Your task to perform on an android device: visit the assistant section in the google photos Image 0: 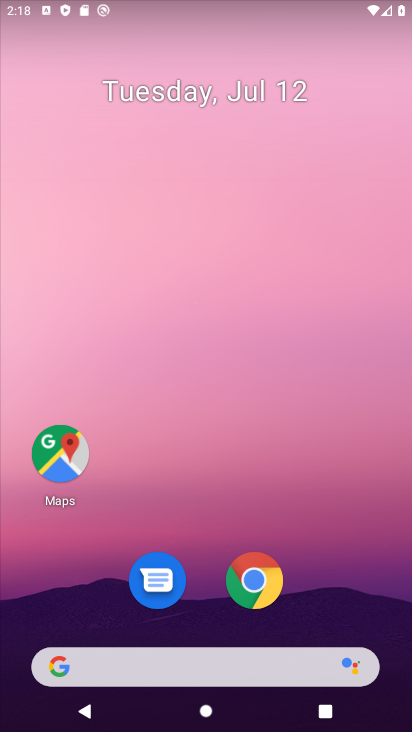
Step 0: drag from (208, 634) to (363, 24)
Your task to perform on an android device: visit the assistant section in the google photos Image 1: 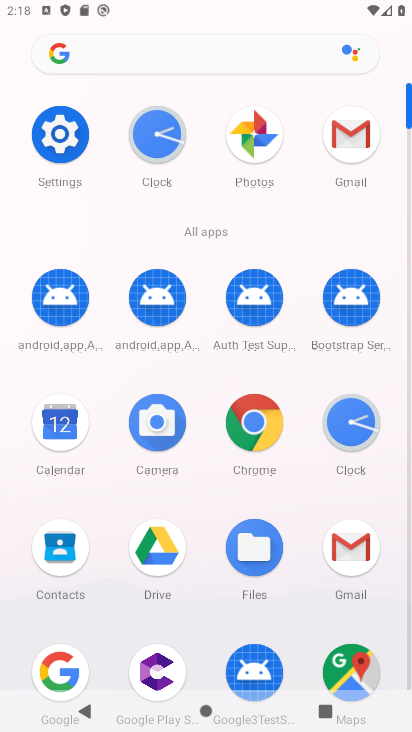
Step 1: click (257, 123)
Your task to perform on an android device: visit the assistant section in the google photos Image 2: 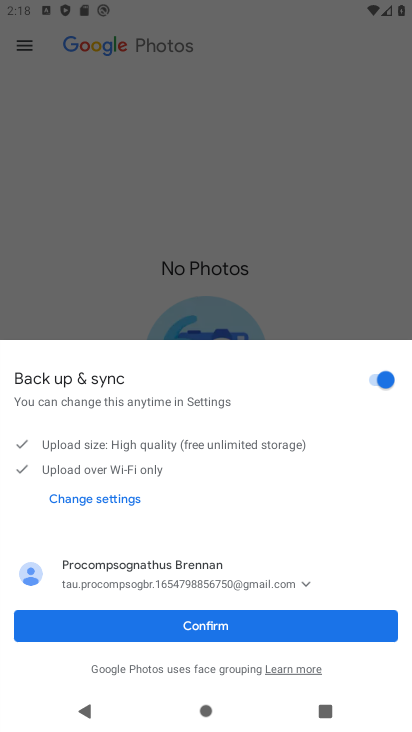
Step 2: click (167, 624)
Your task to perform on an android device: visit the assistant section in the google photos Image 3: 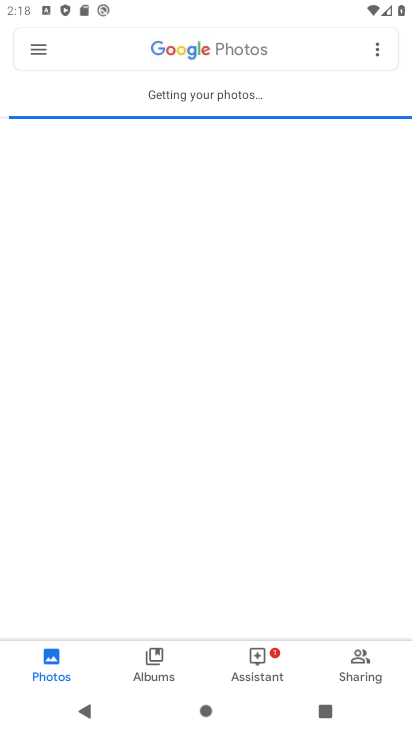
Step 3: click (250, 655)
Your task to perform on an android device: visit the assistant section in the google photos Image 4: 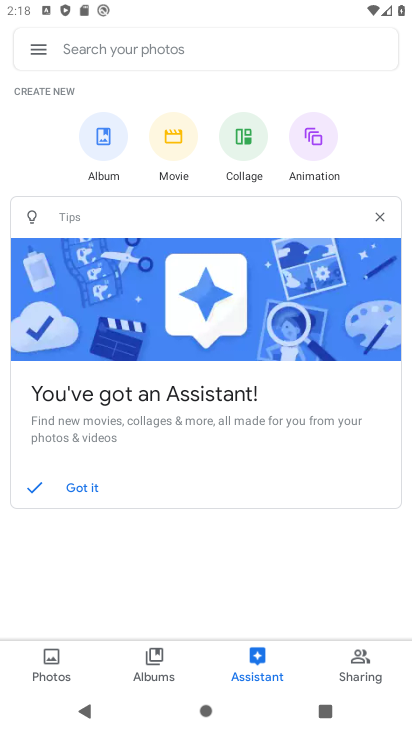
Step 4: task complete